Your task to perform on an android device: Open Reddit.com Image 0: 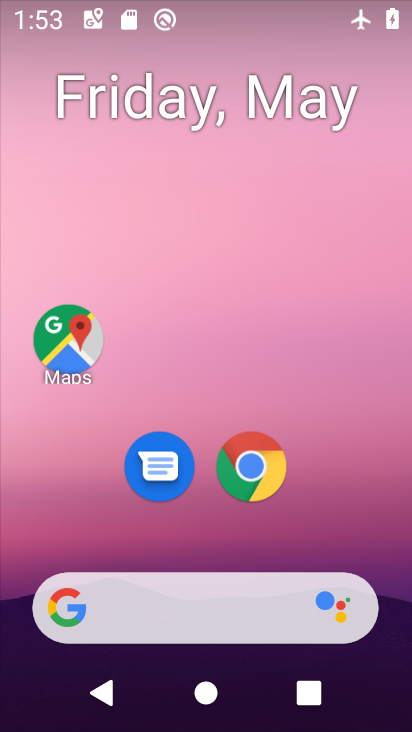
Step 0: click (272, 490)
Your task to perform on an android device: Open Reddit.com Image 1: 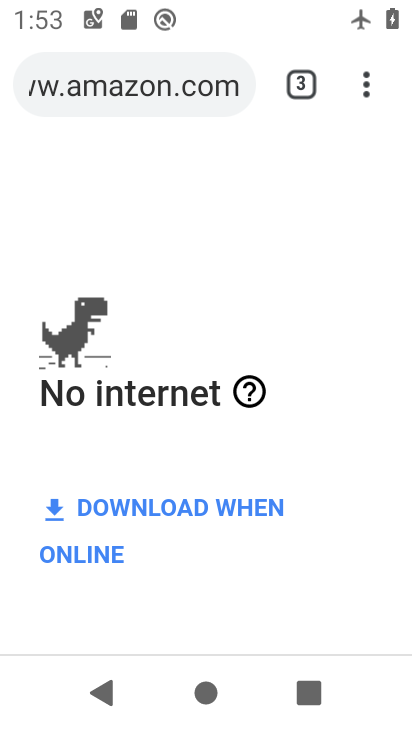
Step 1: click (195, 96)
Your task to perform on an android device: Open Reddit.com Image 2: 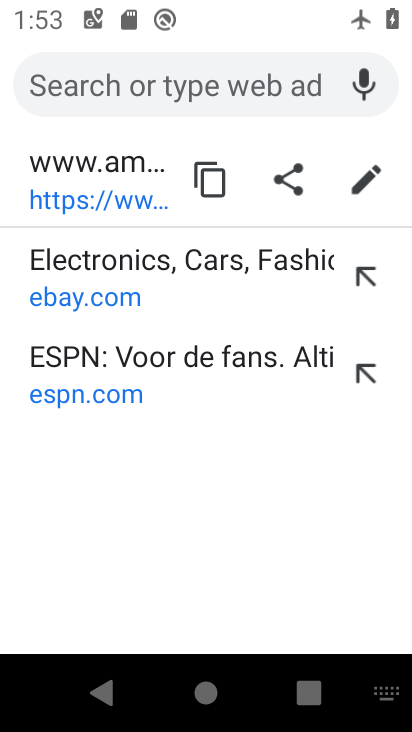
Step 2: type "reddit"
Your task to perform on an android device: Open Reddit.com Image 3: 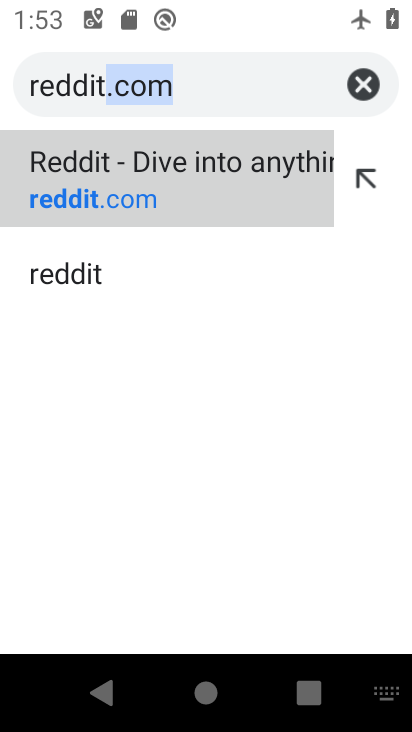
Step 3: click (150, 192)
Your task to perform on an android device: Open Reddit.com Image 4: 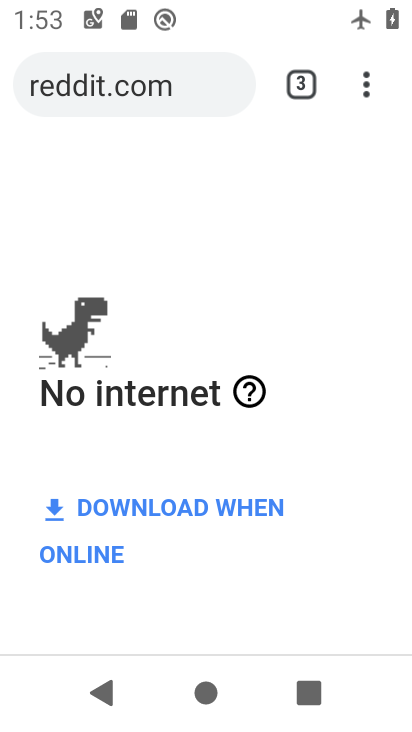
Step 4: task complete